Your task to perform on an android device: install app "Booking.com: Hotels and more" Image 0: 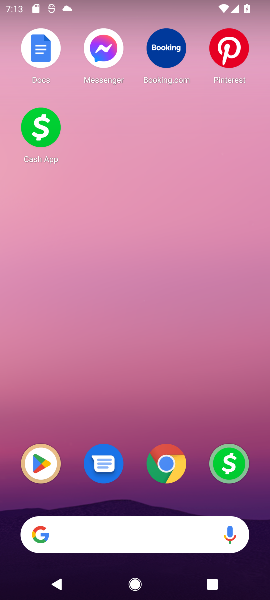
Step 0: task complete